Your task to perform on an android device: Go to display settings Image 0: 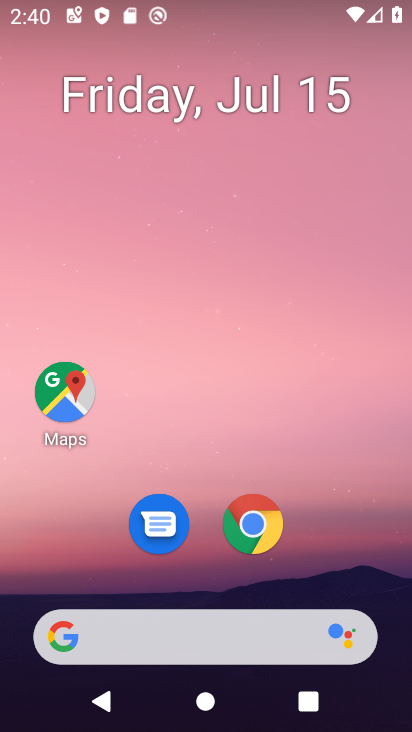
Step 0: drag from (196, 577) to (302, 127)
Your task to perform on an android device: Go to display settings Image 1: 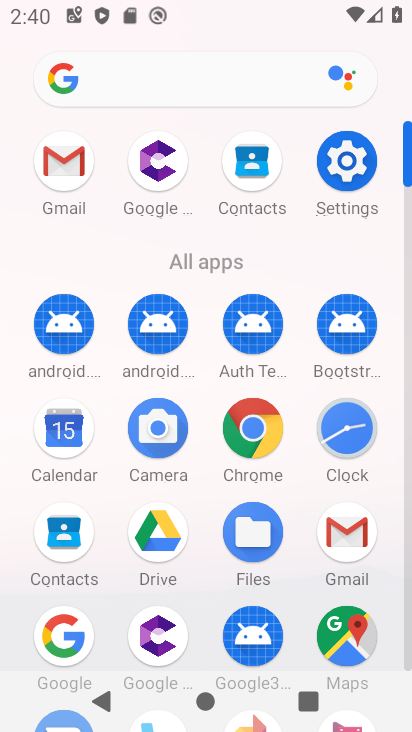
Step 1: click (340, 164)
Your task to perform on an android device: Go to display settings Image 2: 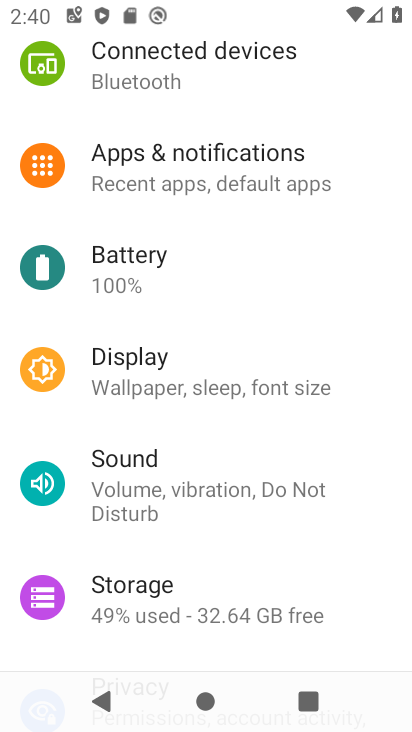
Step 2: click (167, 379)
Your task to perform on an android device: Go to display settings Image 3: 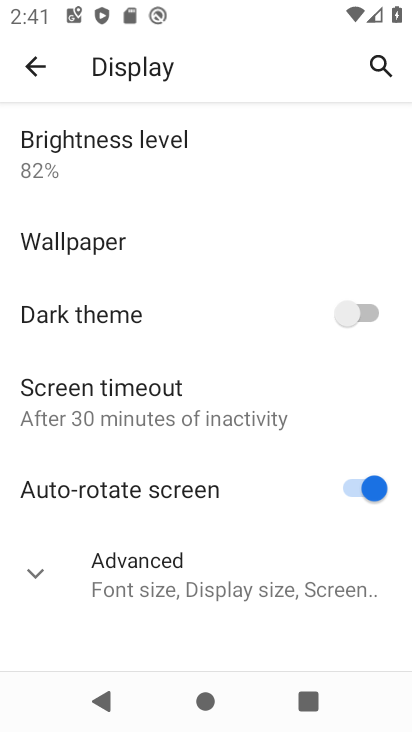
Step 3: task complete